Your task to perform on an android device: Show the shopping cart on costco.com. Search for apple airpods pro on costco.com, select the first entry, add it to the cart, then select checkout. Image 0: 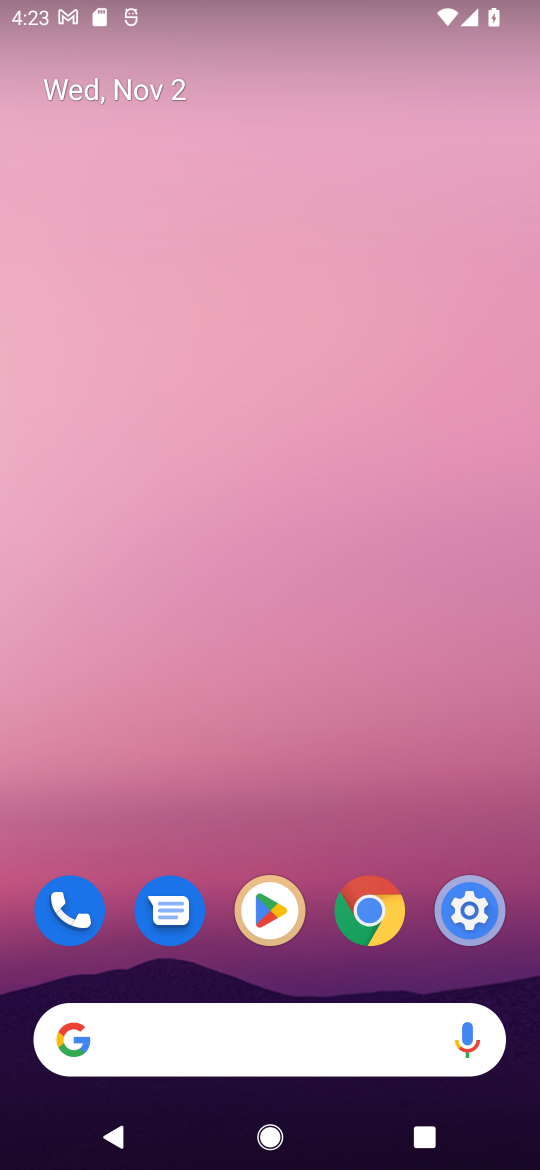
Step 0: click (163, 1031)
Your task to perform on an android device: Show the shopping cart on costco.com. Search for apple airpods pro on costco.com, select the first entry, add it to the cart, then select checkout. Image 1: 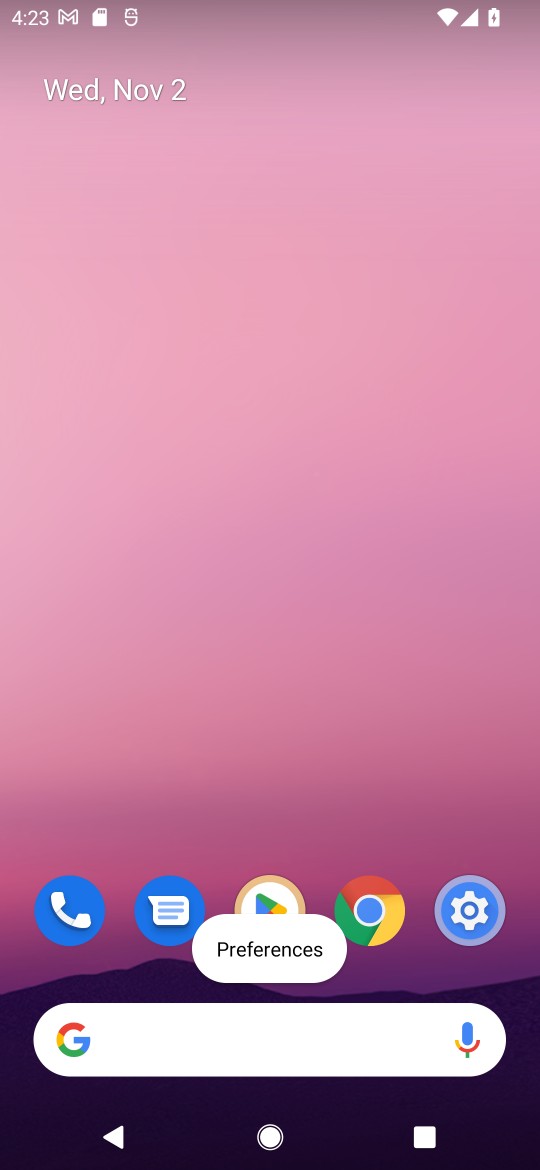
Step 1: click (165, 1036)
Your task to perform on an android device: Show the shopping cart on costco.com. Search for apple airpods pro on costco.com, select the first entry, add it to the cart, then select checkout. Image 2: 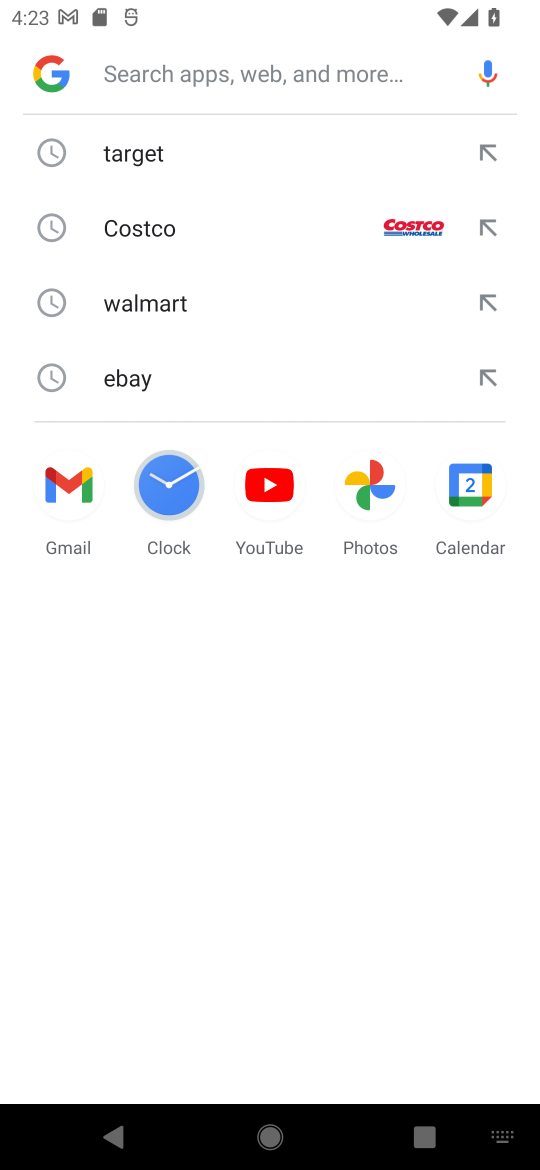
Step 2: type "costco.com"
Your task to perform on an android device: Show the shopping cart on costco.com. Search for apple airpods pro on costco.com, select the first entry, add it to the cart, then select checkout. Image 3: 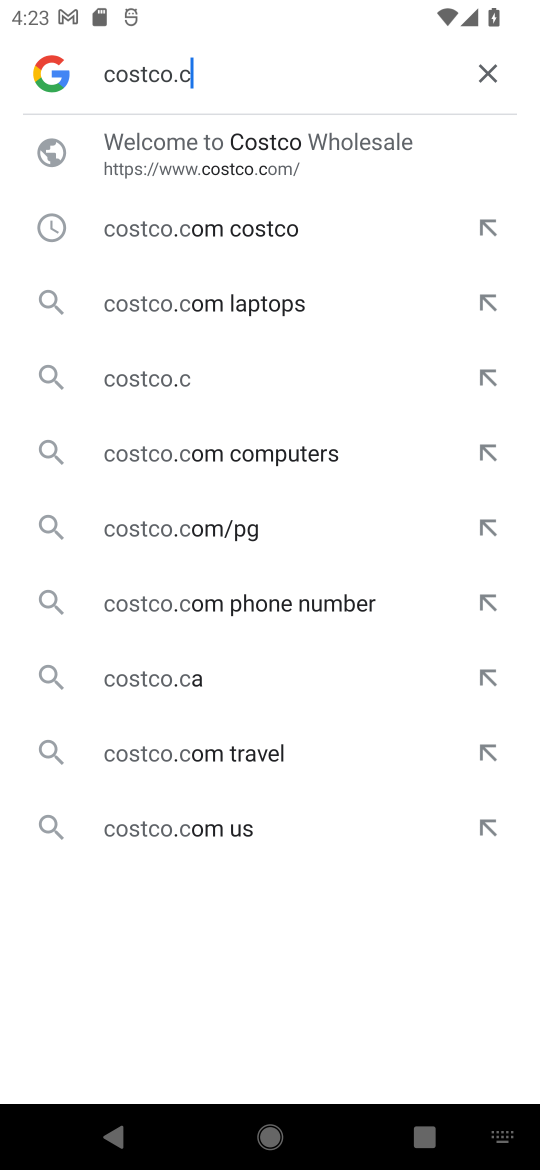
Step 3: type ""
Your task to perform on an android device: Show the shopping cart on costco.com. Search for apple airpods pro on costco.com, select the first entry, add it to the cart, then select checkout. Image 4: 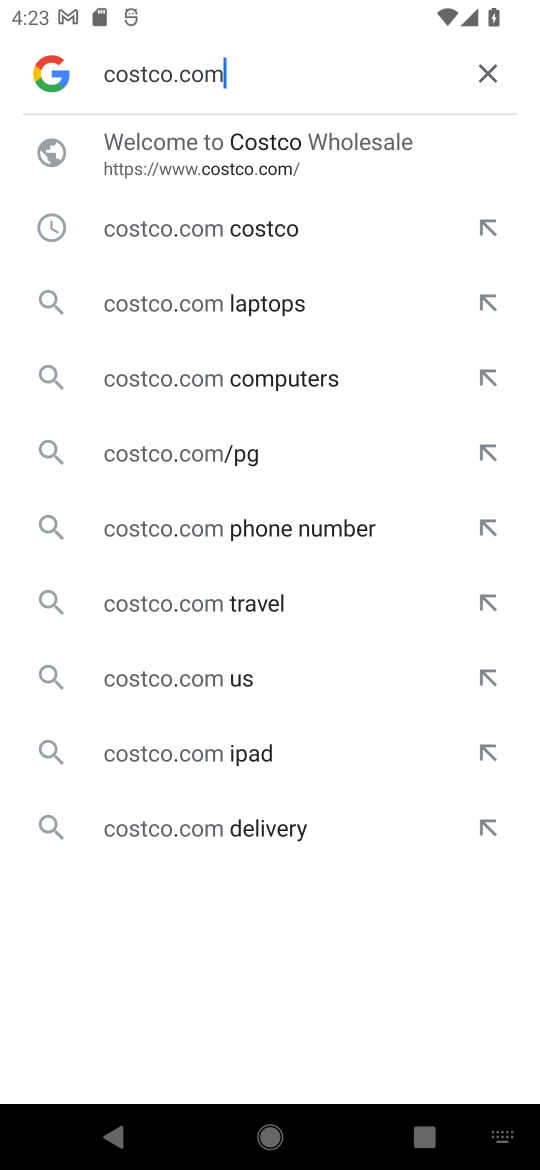
Step 4: press enter
Your task to perform on an android device: Show the shopping cart on costco.com. Search for apple airpods pro on costco.com, select the first entry, add it to the cart, then select checkout. Image 5: 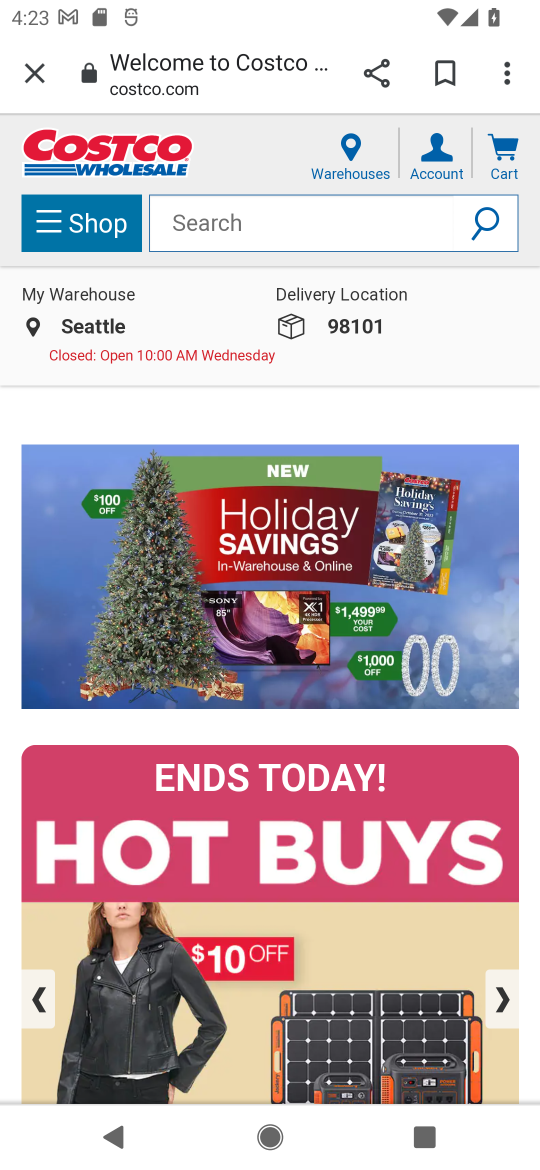
Step 5: type " apple airpods pro"
Your task to perform on an android device: Show the shopping cart on costco.com. Search for apple airpods pro on costco.com, select the first entry, add it to the cart, then select checkout. Image 6: 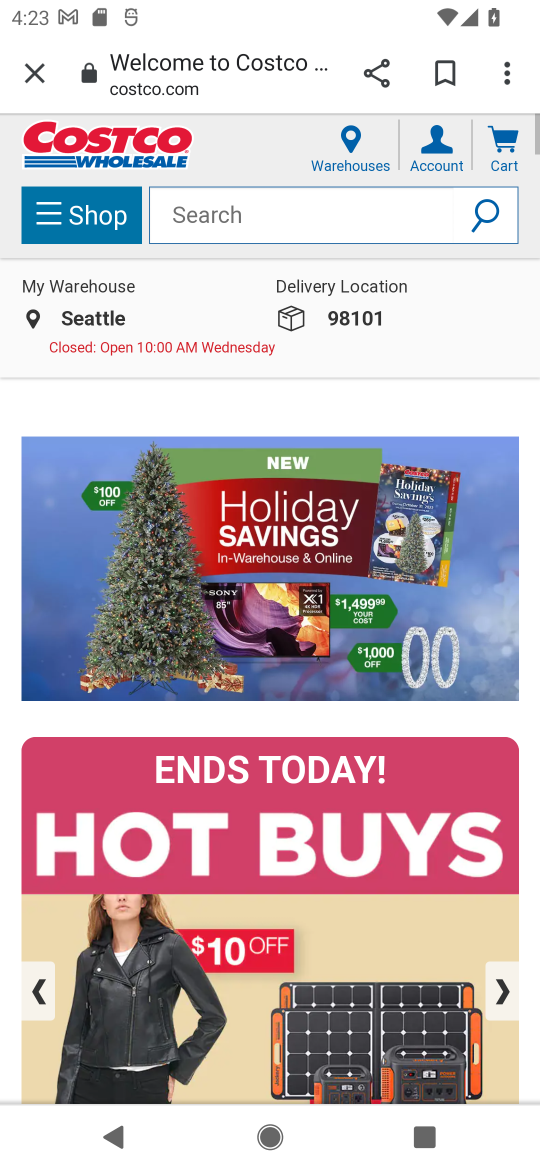
Step 6: type ""
Your task to perform on an android device: Show the shopping cart on costco.com. Search for apple airpods pro on costco.com, select the first entry, add it to the cart, then select checkout. Image 7: 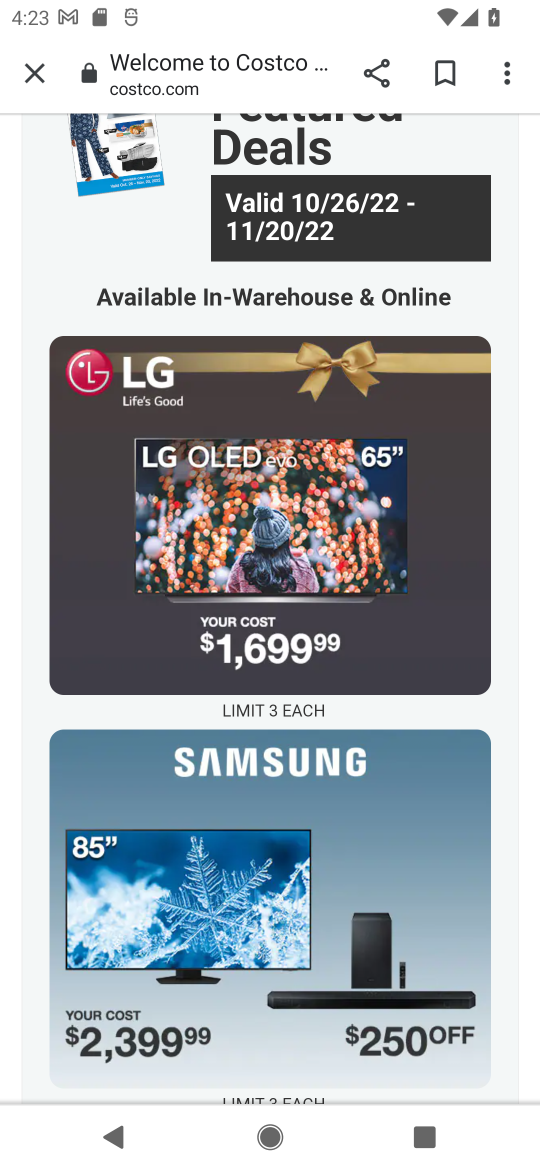
Step 7: drag from (514, 256) to (513, 667)
Your task to perform on an android device: Show the shopping cart on costco.com. Search for apple airpods pro on costco.com, select the first entry, add it to the cart, then select checkout. Image 8: 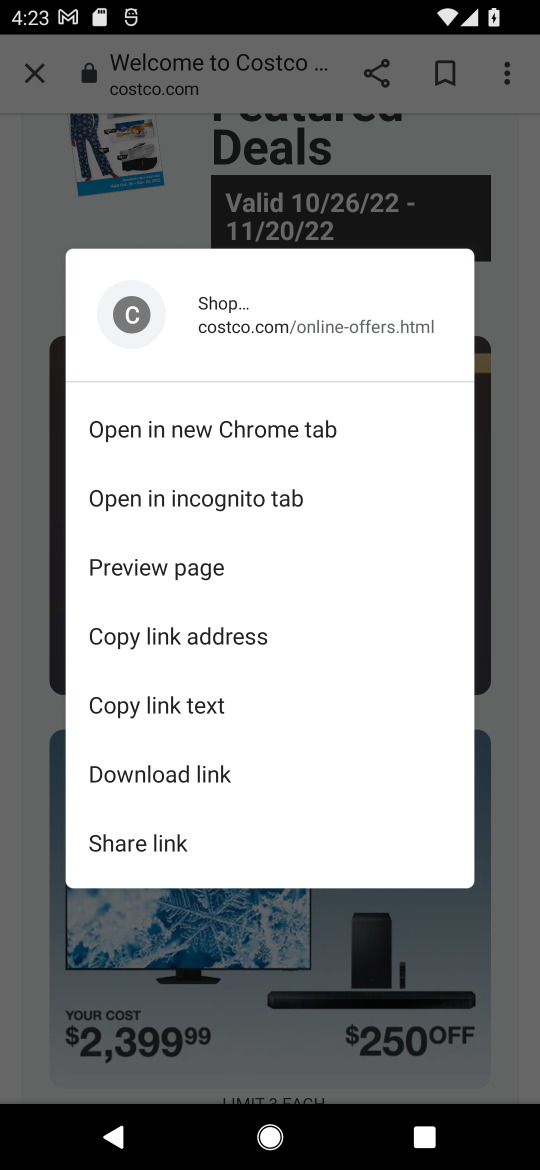
Step 8: click (518, 355)
Your task to perform on an android device: Show the shopping cart on costco.com. Search for apple airpods pro on costco.com, select the first entry, add it to the cart, then select checkout. Image 9: 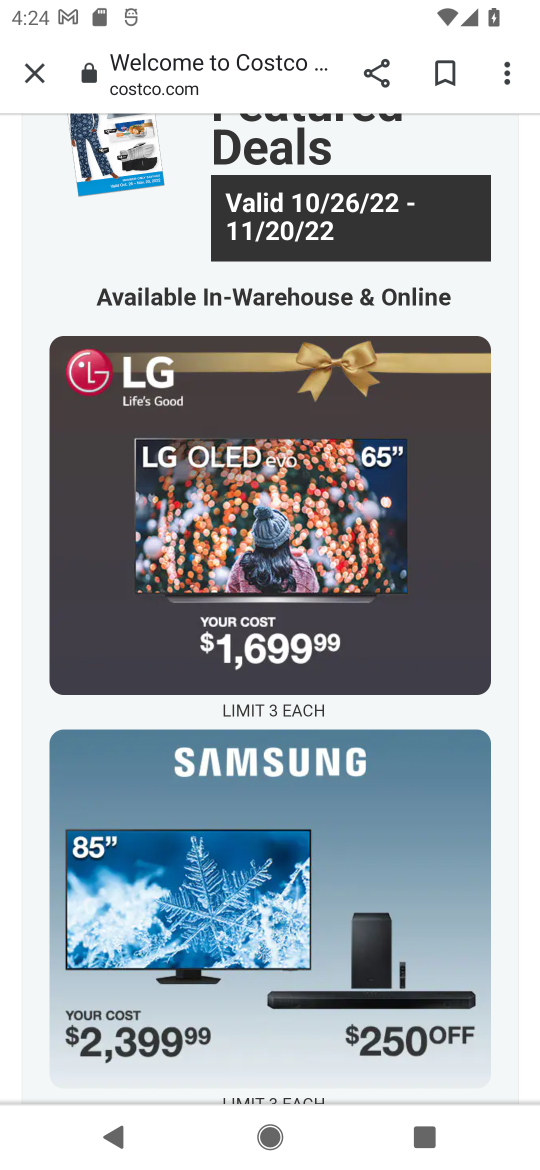
Step 9: drag from (524, 282) to (487, 1160)
Your task to perform on an android device: Show the shopping cart on costco.com. Search for apple airpods pro on costco.com, select the first entry, add it to the cart, then select checkout. Image 10: 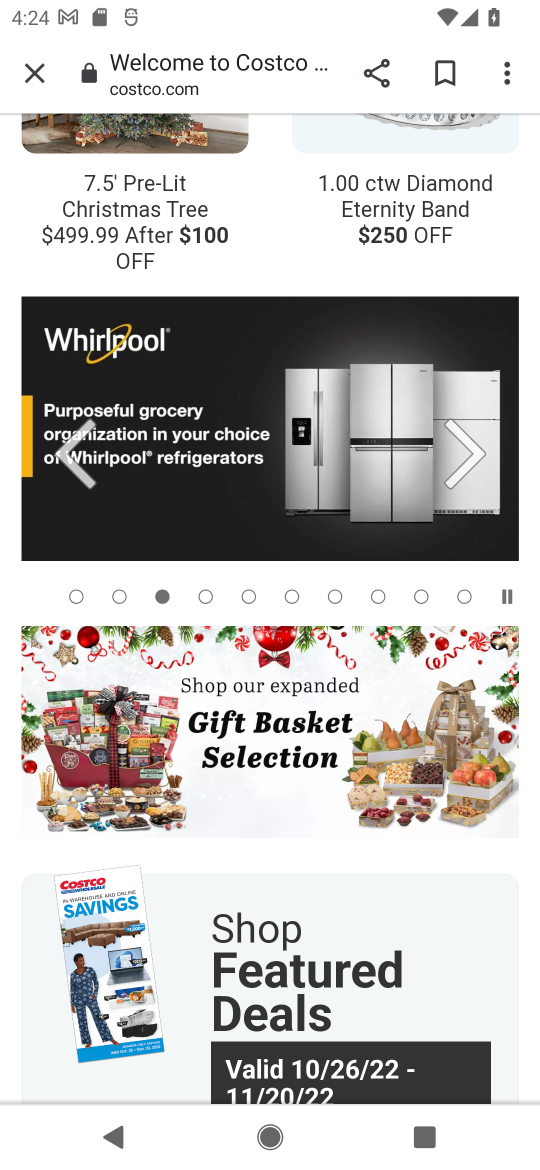
Step 10: drag from (521, 207) to (476, 1163)
Your task to perform on an android device: Show the shopping cart on costco.com. Search for apple airpods pro on costco.com, select the first entry, add it to the cart, then select checkout. Image 11: 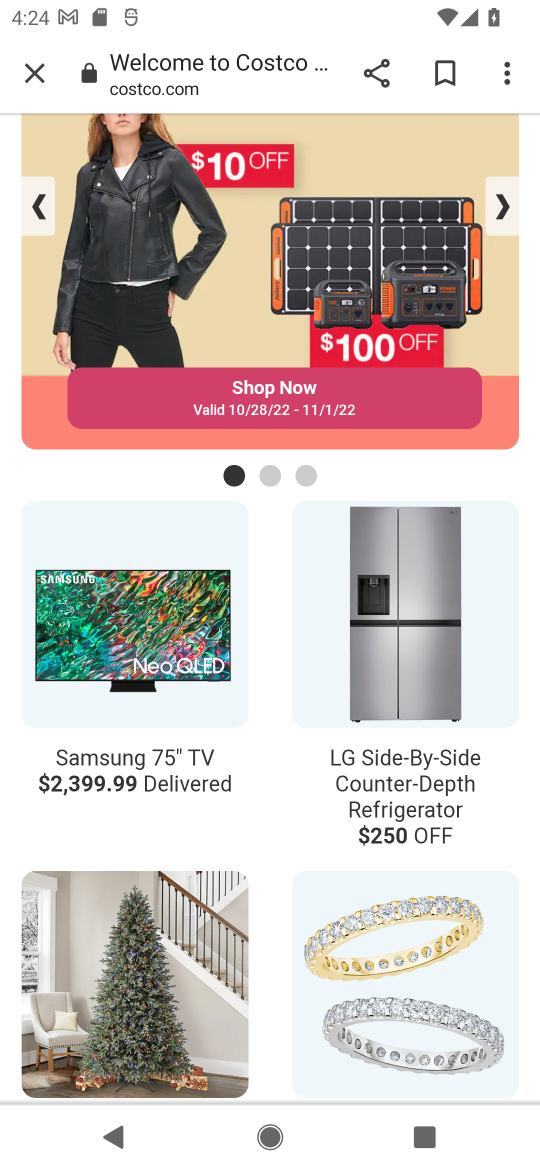
Step 11: drag from (523, 211) to (433, 1166)
Your task to perform on an android device: Show the shopping cart on costco.com. Search for apple airpods pro on costco.com, select the first entry, add it to the cart, then select checkout. Image 12: 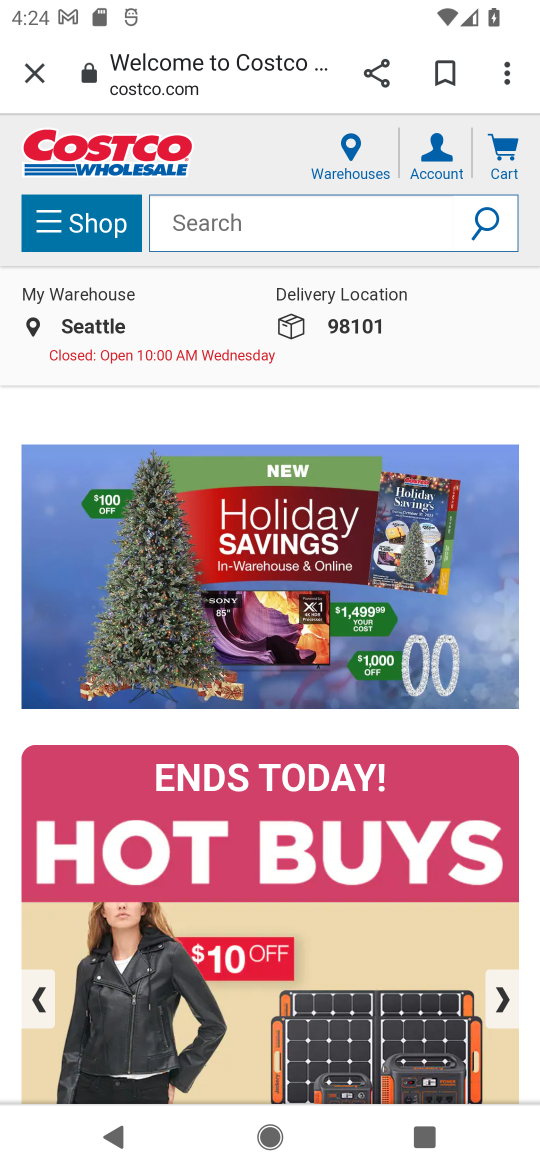
Step 12: click (228, 224)
Your task to perform on an android device: Show the shopping cart on costco.com. Search for apple airpods pro on costco.com, select the first entry, add it to the cart, then select checkout. Image 13: 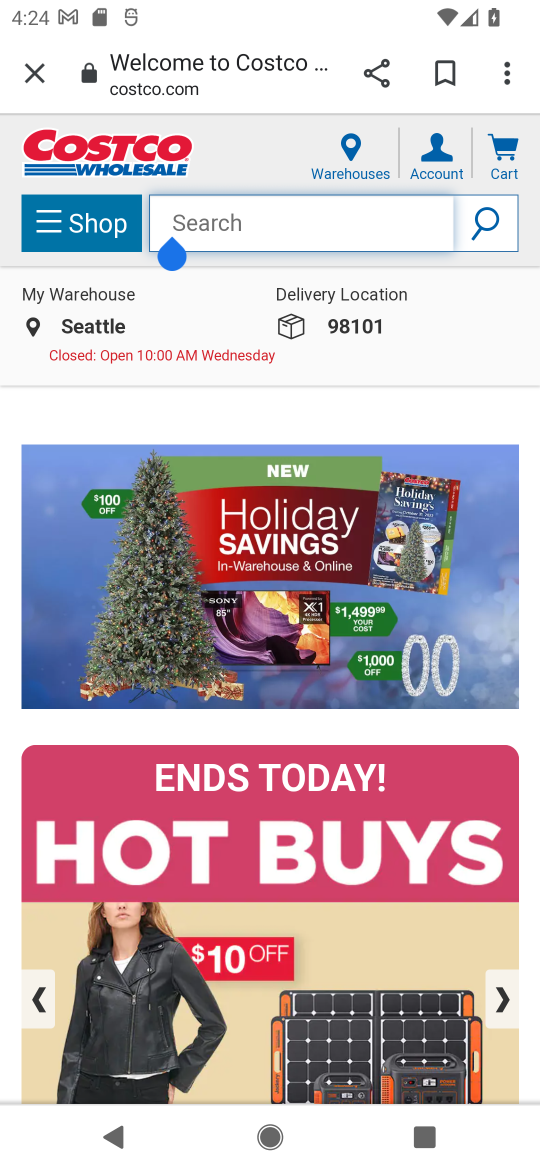
Step 13: type " apple airpods pro"
Your task to perform on an android device: Show the shopping cart on costco.com. Search for apple airpods pro on costco.com, select the first entry, add it to the cart, then select checkout. Image 14: 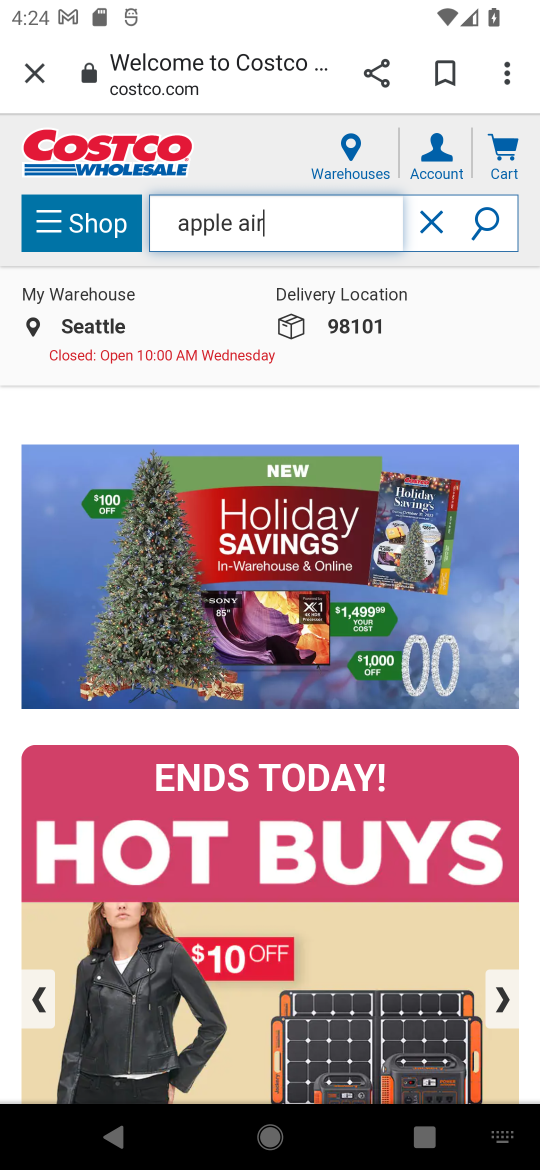
Step 14: type ""
Your task to perform on an android device: Show the shopping cart on costco.com. Search for apple airpods pro on costco.com, select the first entry, add it to the cart, then select checkout. Image 15: 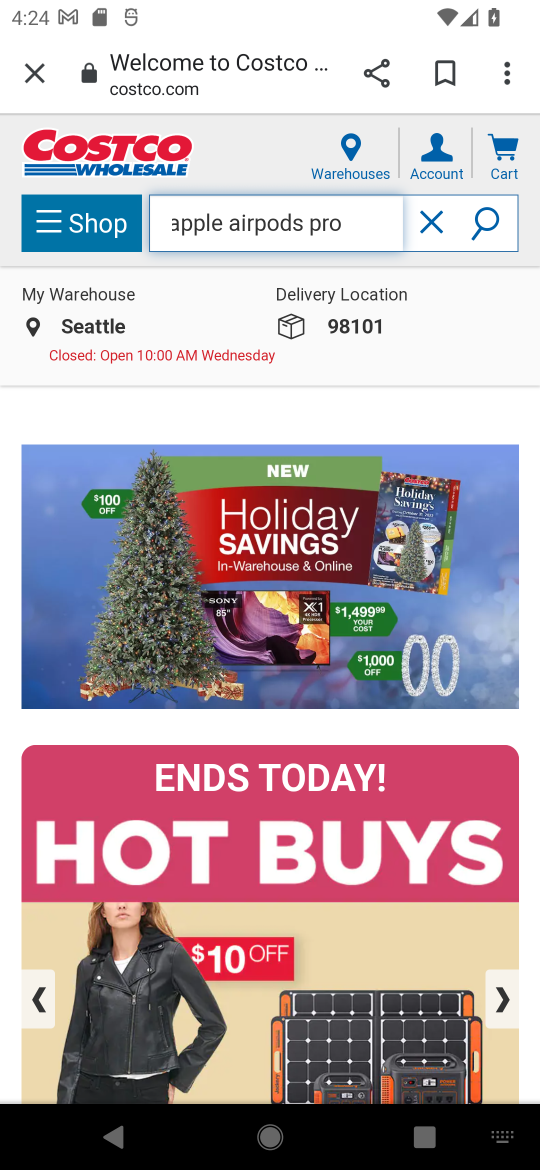
Step 15: click (484, 216)
Your task to perform on an android device: Show the shopping cart on costco.com. Search for apple airpods pro on costco.com, select the first entry, add it to the cart, then select checkout. Image 16: 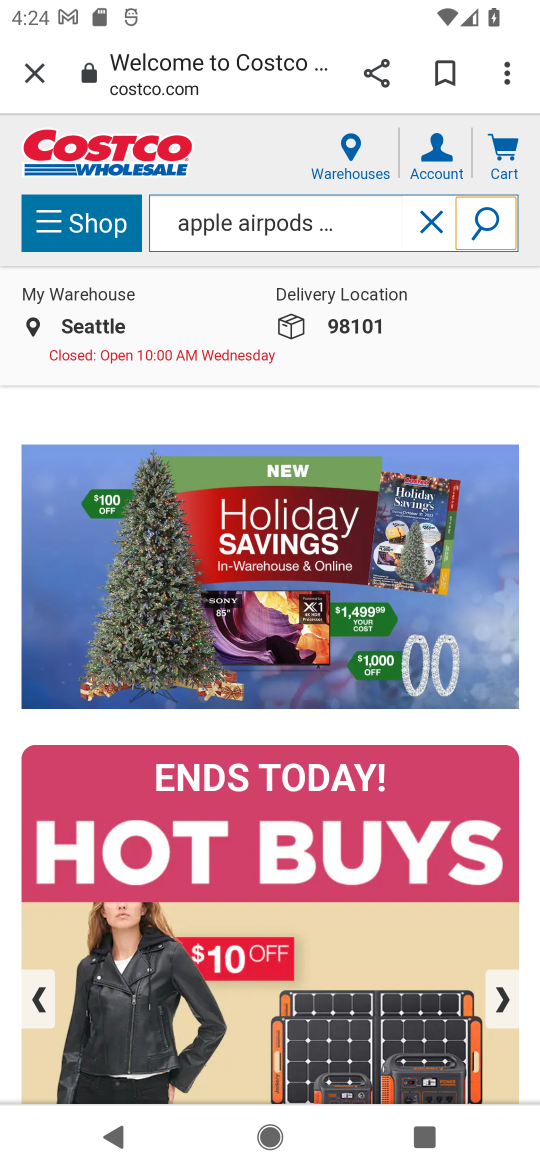
Step 16: click (484, 216)
Your task to perform on an android device: Show the shopping cart on costco.com. Search for apple airpods pro on costco.com, select the first entry, add it to the cart, then select checkout. Image 17: 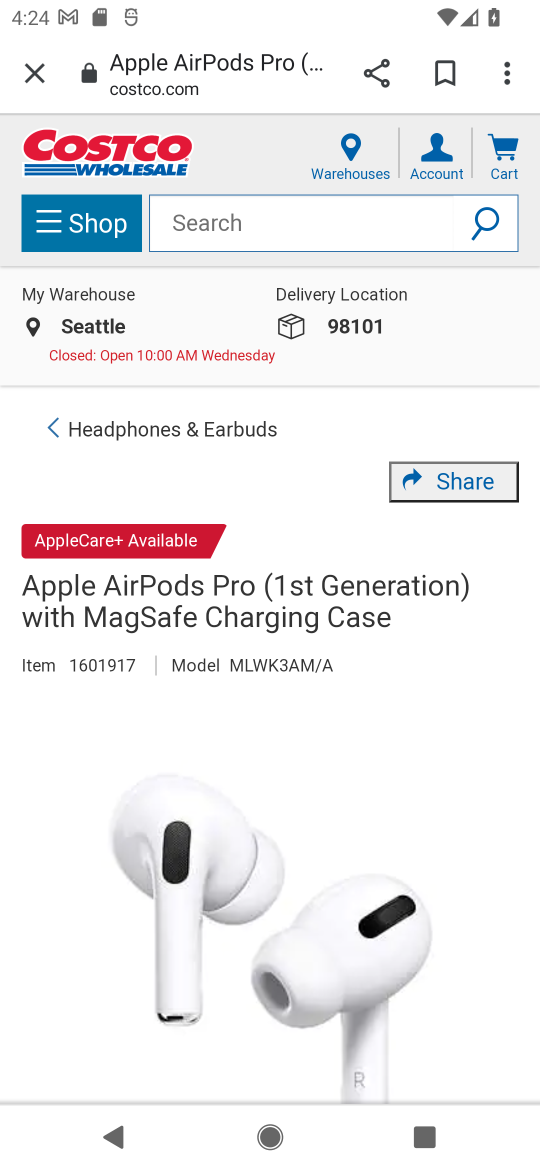
Step 17: drag from (489, 806) to (435, 173)
Your task to perform on an android device: Show the shopping cart on costco.com. Search for apple airpods pro on costco.com, select the first entry, add it to the cart, then select checkout. Image 18: 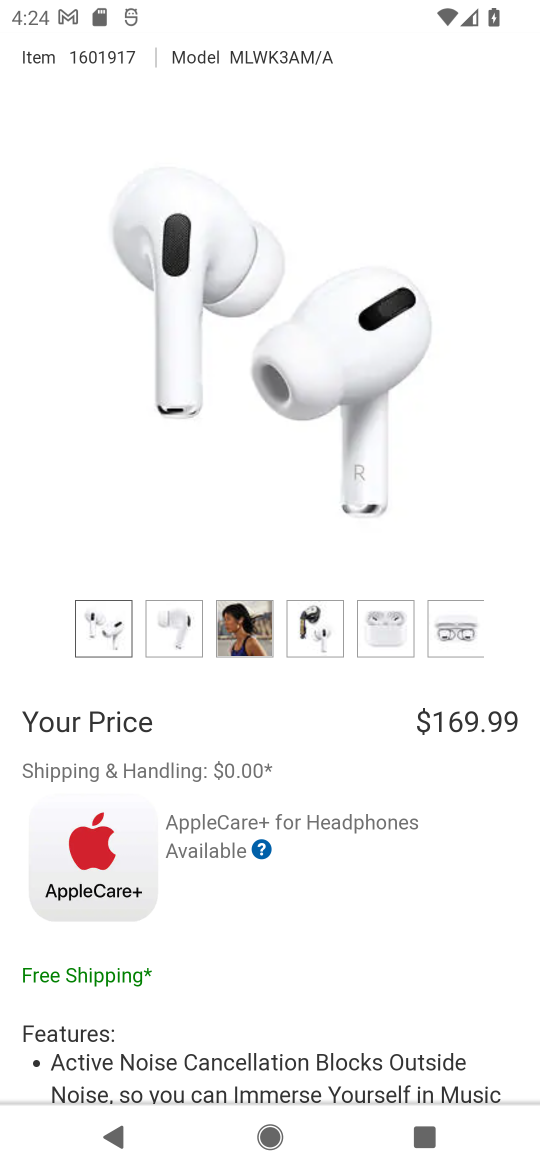
Step 18: drag from (387, 909) to (381, 346)
Your task to perform on an android device: Show the shopping cart on costco.com. Search for apple airpods pro on costco.com, select the first entry, add it to the cart, then select checkout. Image 19: 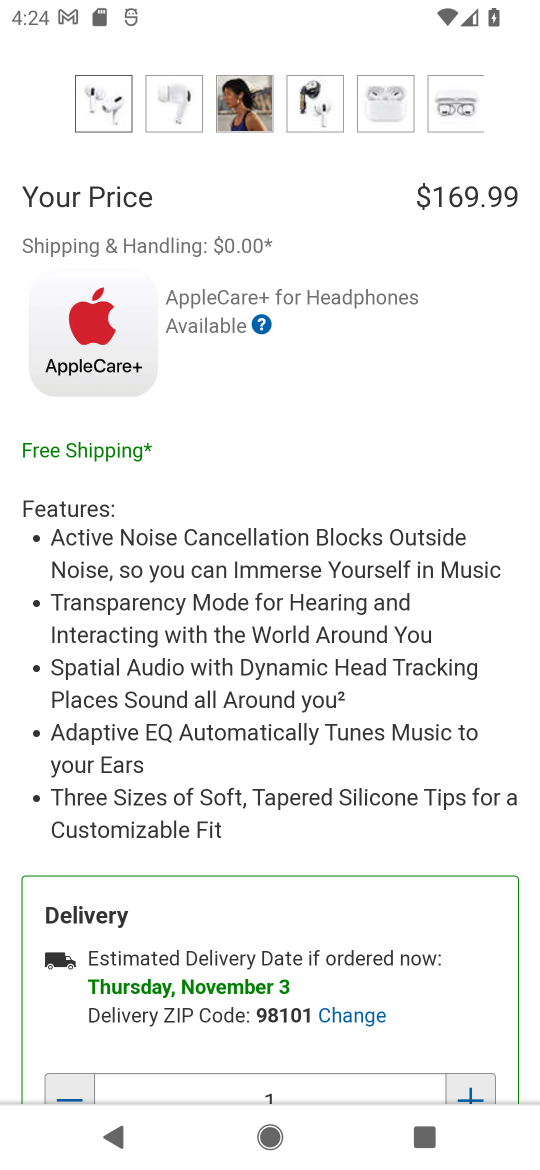
Step 19: drag from (306, 846) to (308, 351)
Your task to perform on an android device: Show the shopping cart on costco.com. Search for apple airpods pro on costco.com, select the first entry, add it to the cart, then select checkout. Image 20: 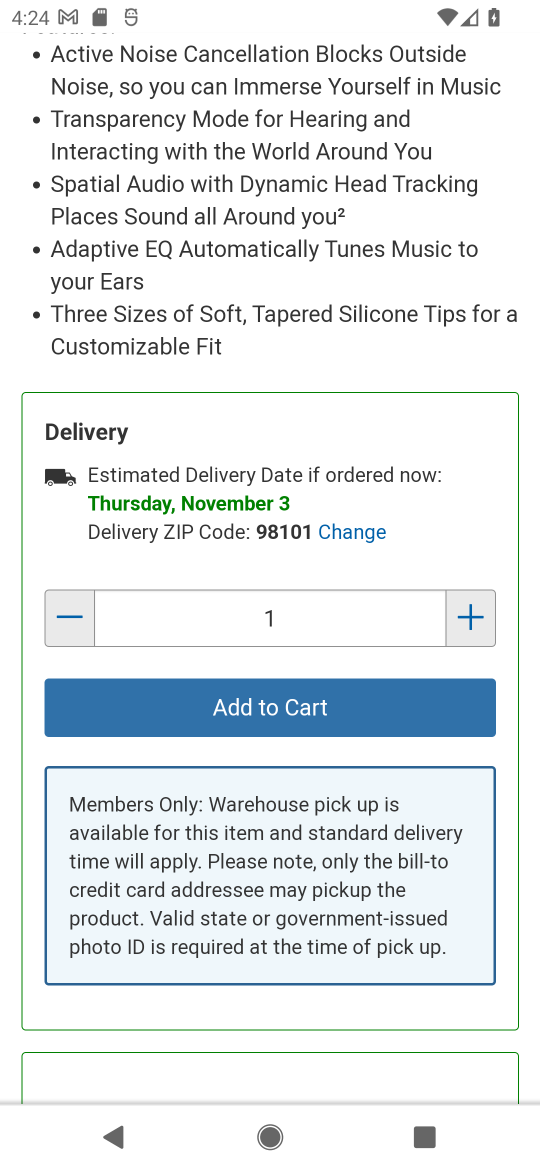
Step 20: click (252, 713)
Your task to perform on an android device: Show the shopping cart on costco.com. Search for apple airpods pro on costco.com, select the first entry, add it to the cart, then select checkout. Image 21: 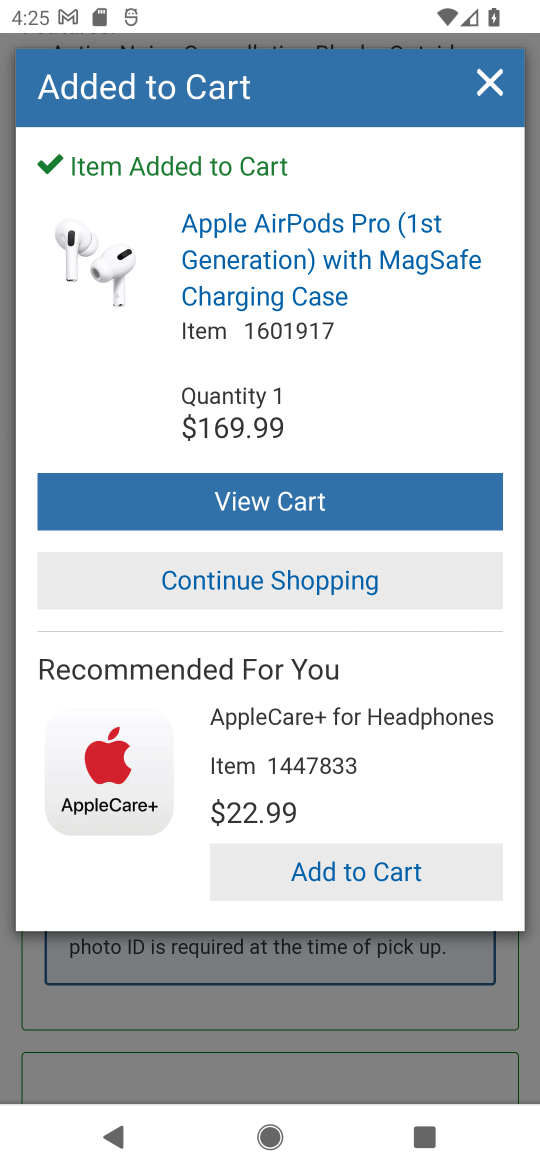
Step 21: click (344, 868)
Your task to perform on an android device: Show the shopping cart on costco.com. Search for apple airpods pro on costco.com, select the first entry, add it to the cart, then select checkout. Image 22: 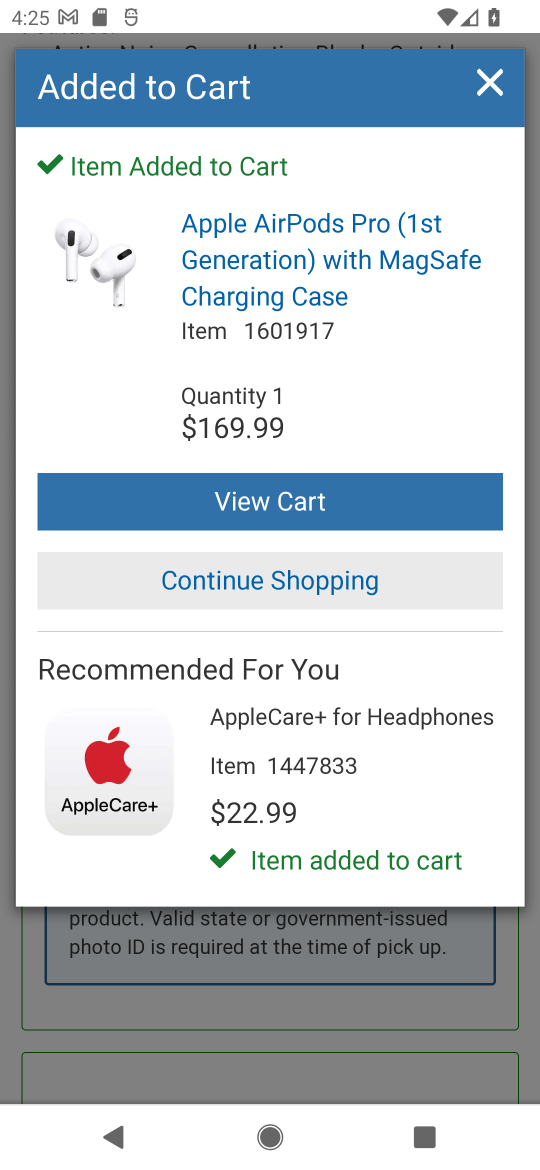
Step 22: click (331, 498)
Your task to perform on an android device: Show the shopping cart on costco.com. Search for apple airpods pro on costco.com, select the first entry, add it to the cart, then select checkout. Image 23: 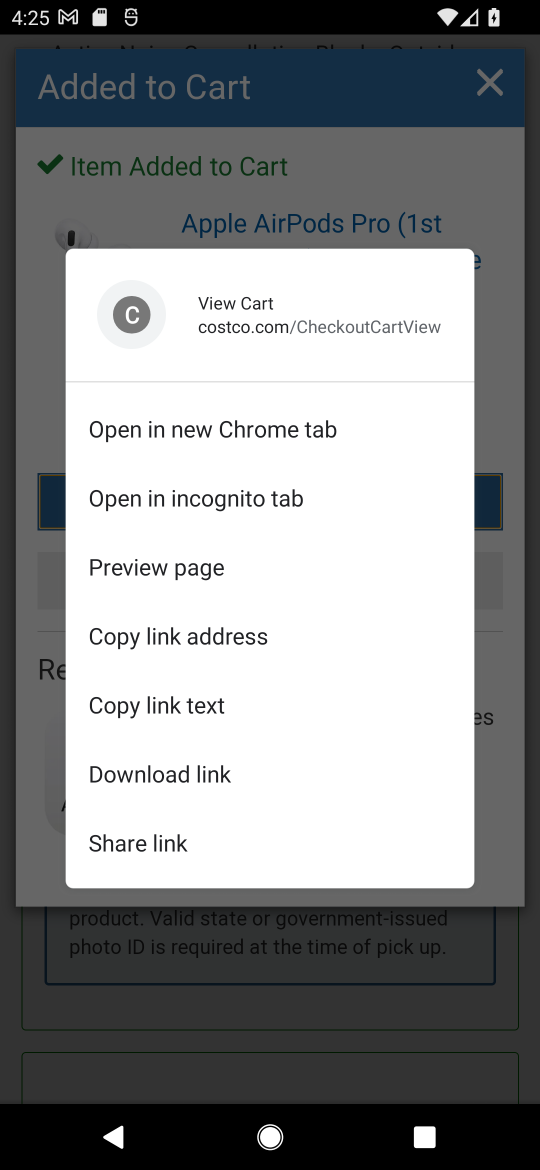
Step 23: click (512, 396)
Your task to perform on an android device: Show the shopping cart on costco.com. Search for apple airpods pro on costco.com, select the first entry, add it to the cart, then select checkout. Image 24: 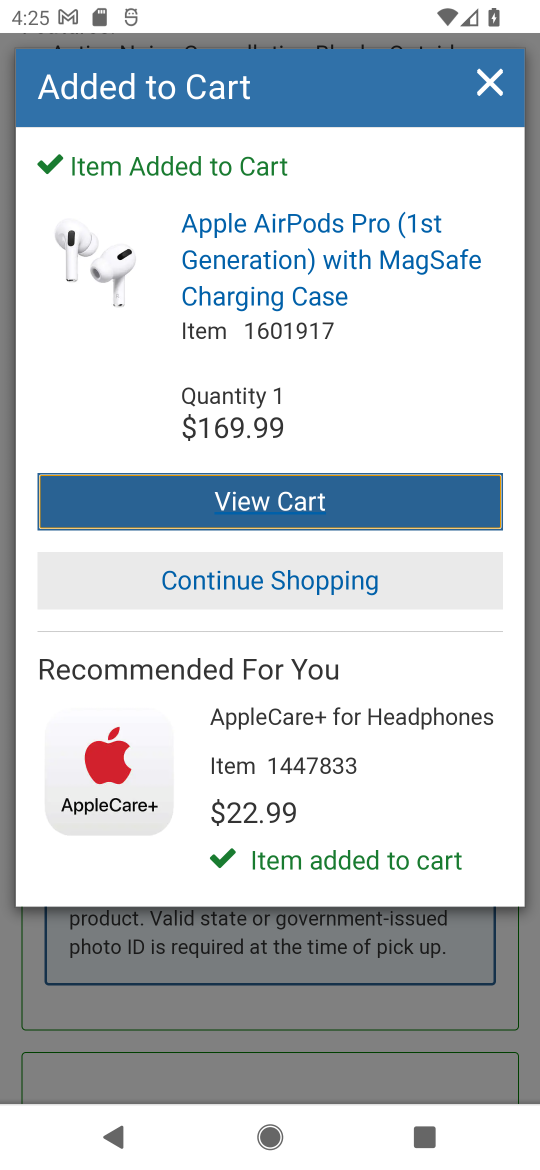
Step 24: click (316, 504)
Your task to perform on an android device: Show the shopping cart on costco.com. Search for apple airpods pro on costco.com, select the first entry, add it to the cart, then select checkout. Image 25: 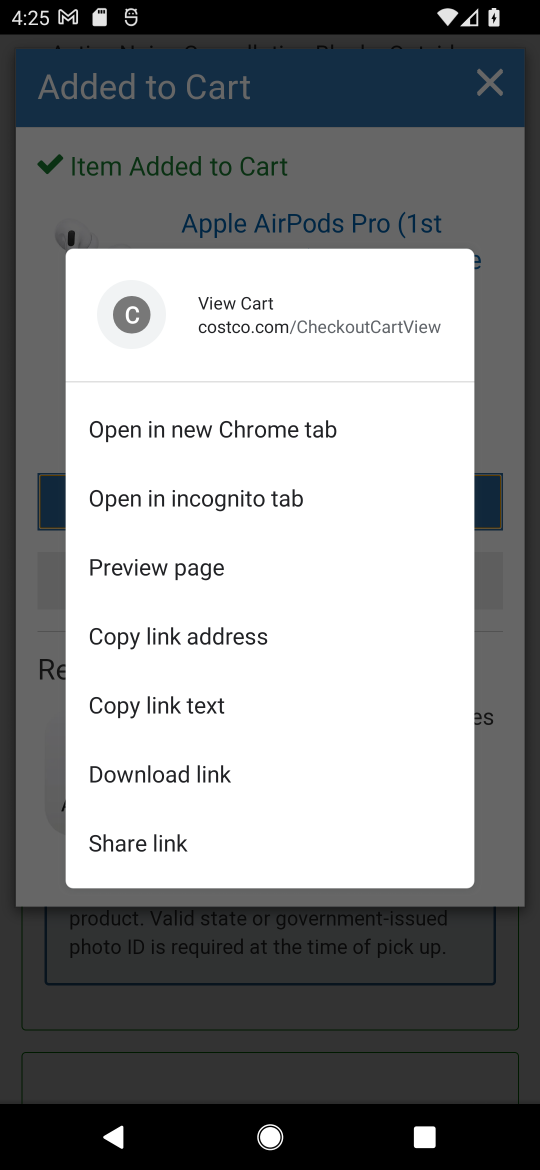
Step 25: click (488, 497)
Your task to perform on an android device: Show the shopping cart on costco.com. Search for apple airpods pro on costco.com, select the first entry, add it to the cart, then select checkout. Image 26: 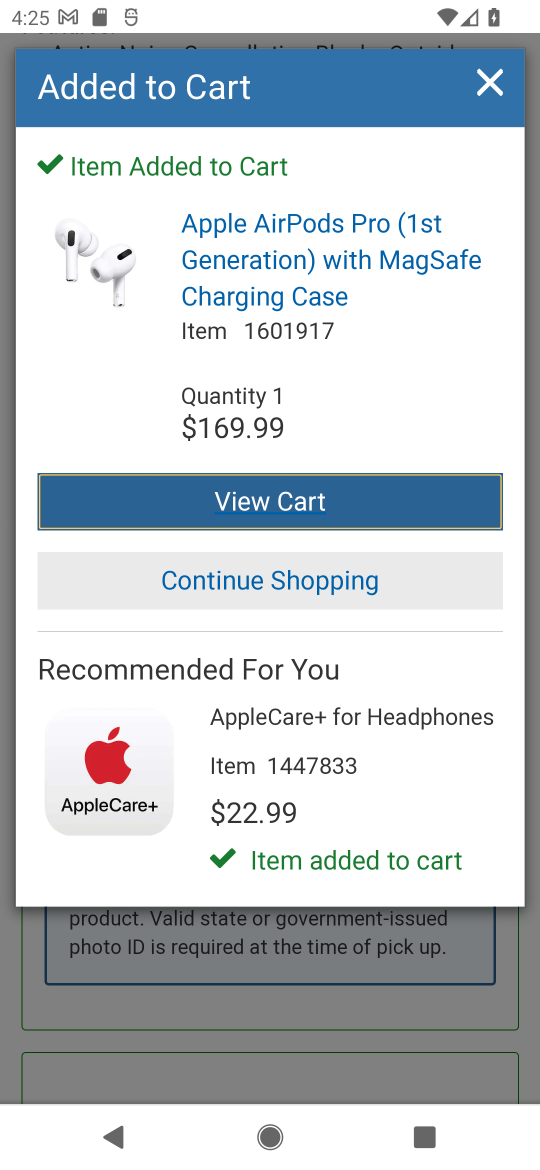
Step 26: click (495, 87)
Your task to perform on an android device: Show the shopping cart on costco.com. Search for apple airpods pro on costco.com, select the first entry, add it to the cart, then select checkout. Image 27: 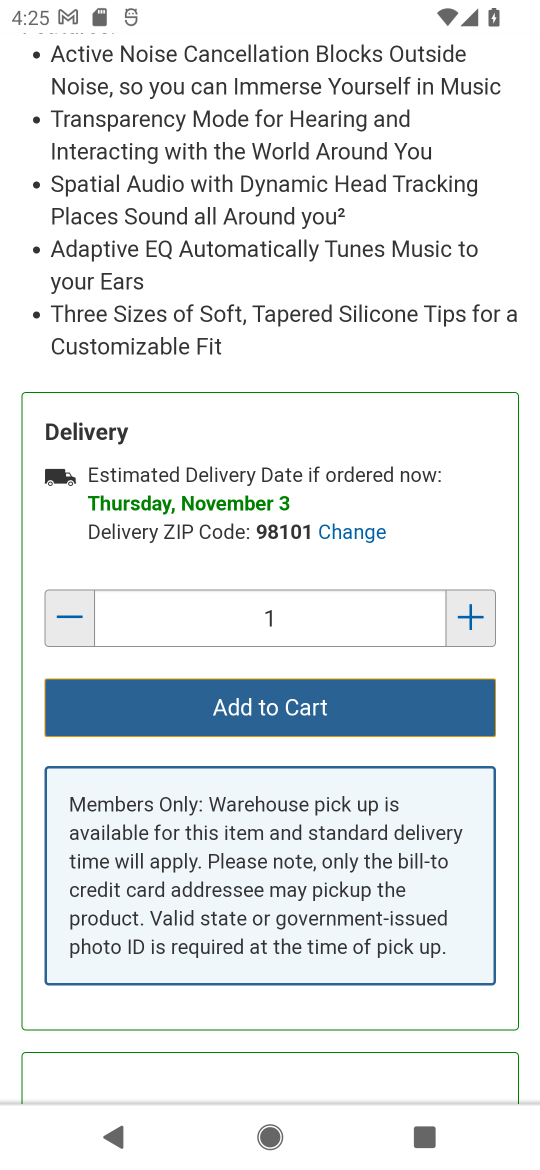
Step 27: drag from (485, 134) to (452, 1156)
Your task to perform on an android device: Show the shopping cart on costco.com. Search for apple airpods pro on costco.com, select the first entry, add it to the cart, then select checkout. Image 28: 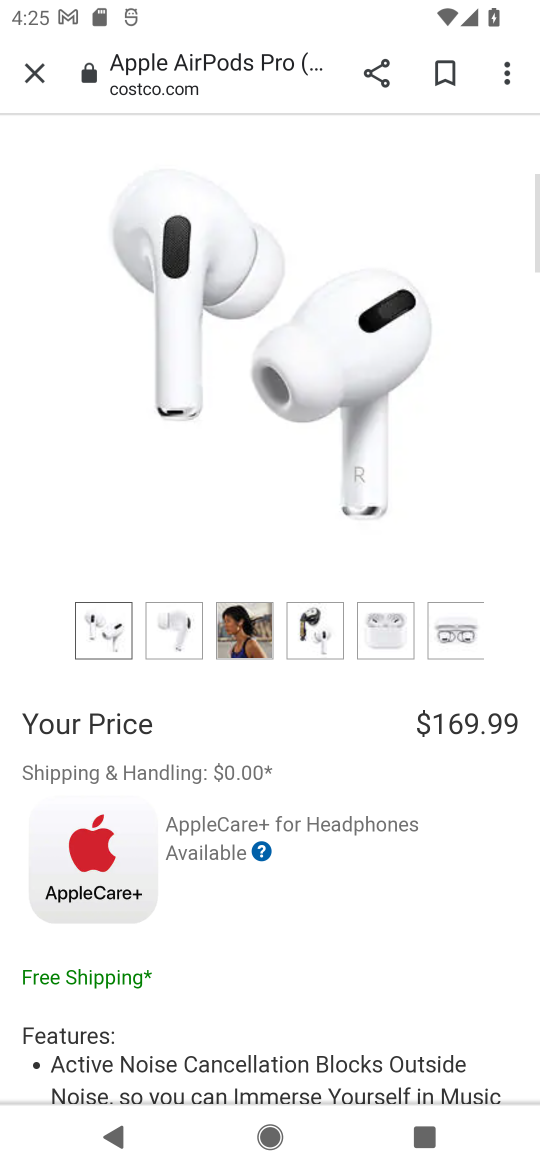
Step 28: drag from (452, 940) to (420, 299)
Your task to perform on an android device: Show the shopping cart on costco.com. Search for apple airpods pro on costco.com, select the first entry, add it to the cart, then select checkout. Image 29: 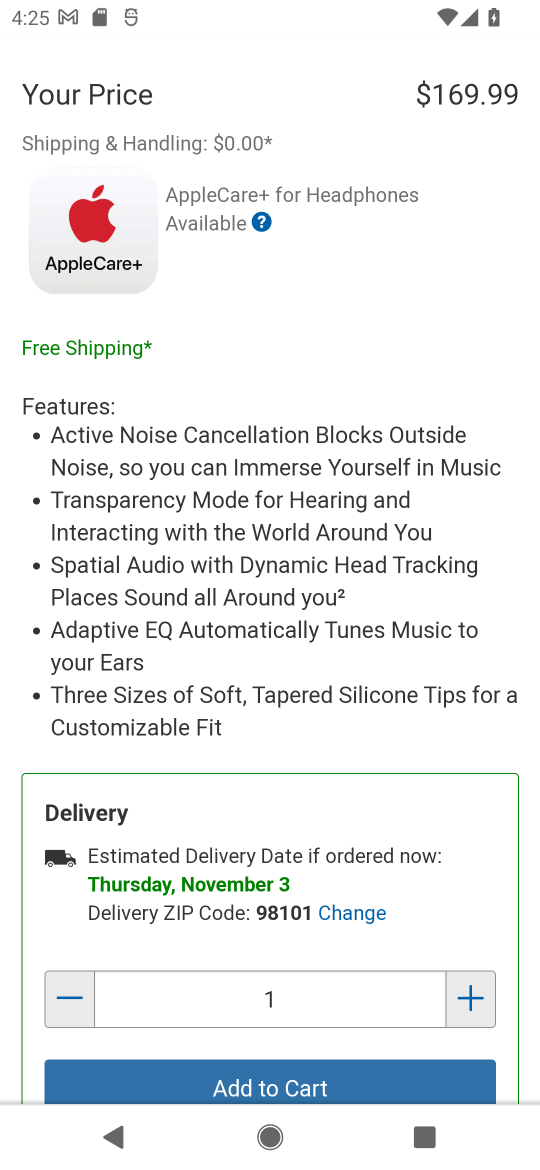
Step 29: drag from (363, 910) to (371, 727)
Your task to perform on an android device: Show the shopping cart on costco.com. Search for apple airpods pro on costco.com, select the first entry, add it to the cart, then select checkout. Image 30: 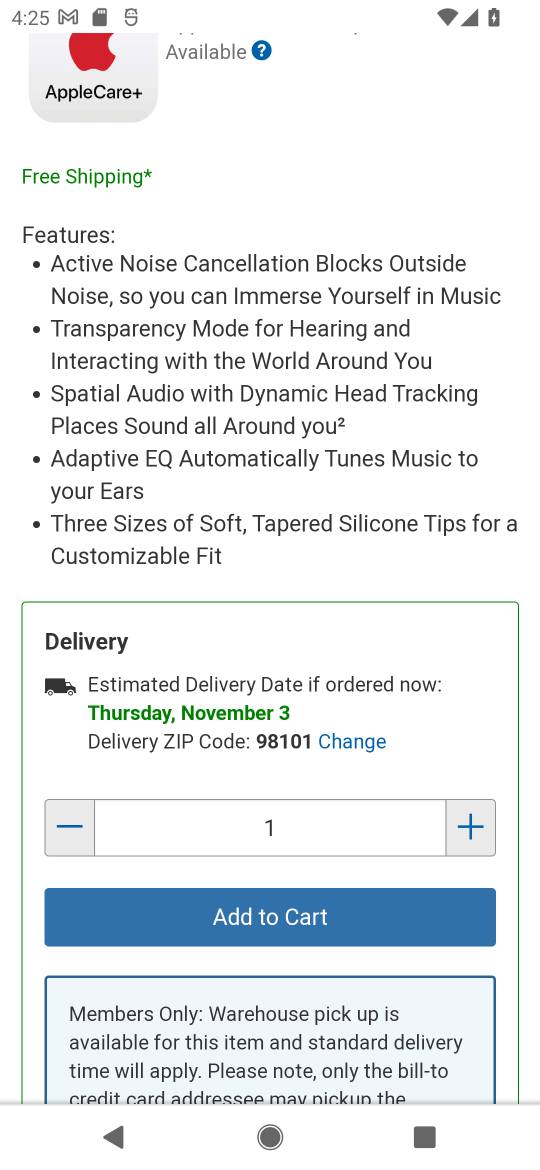
Step 30: click (261, 924)
Your task to perform on an android device: Show the shopping cart on costco.com. Search for apple airpods pro on costco.com, select the first entry, add it to the cart, then select checkout. Image 31: 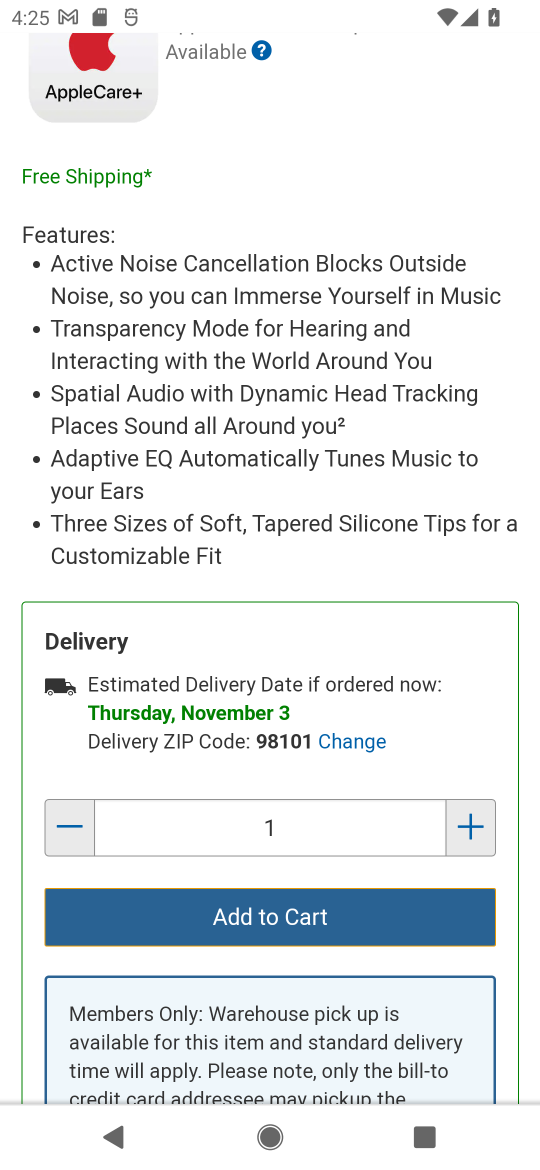
Step 31: click (261, 924)
Your task to perform on an android device: Show the shopping cart on costco.com. Search for apple airpods pro on costco.com, select the first entry, add it to the cart, then select checkout. Image 32: 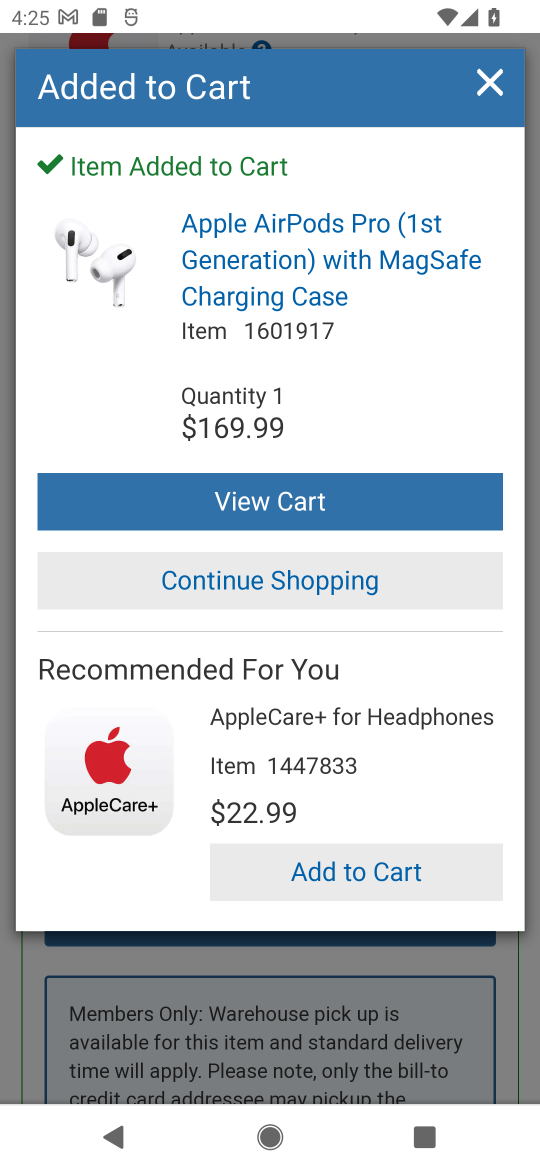
Step 32: click (308, 507)
Your task to perform on an android device: Show the shopping cart on costco.com. Search for apple airpods pro on costco.com, select the first entry, add it to the cart, then select checkout. Image 33: 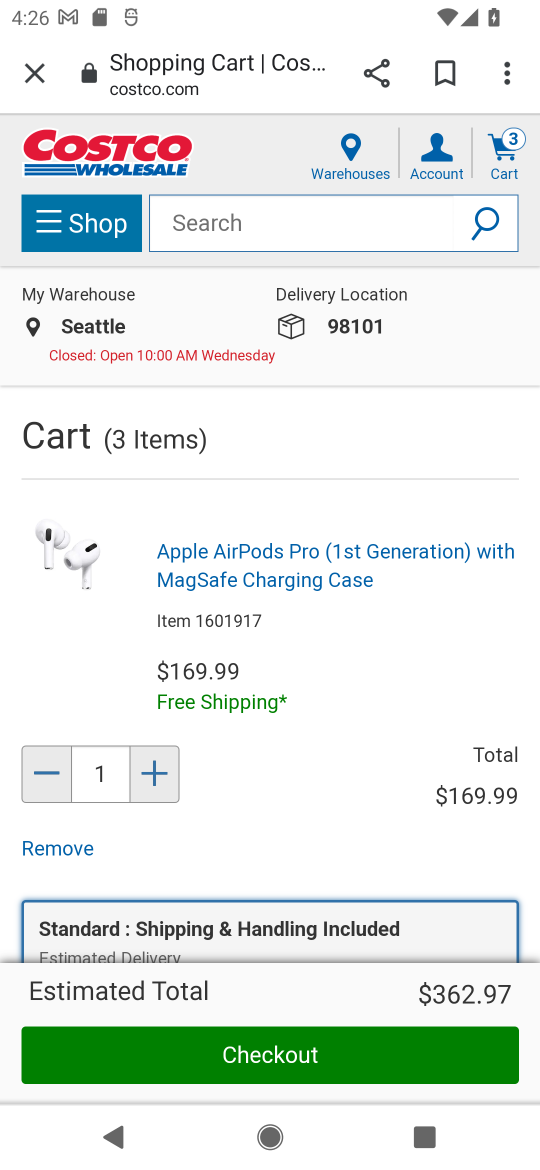
Step 33: click (271, 1052)
Your task to perform on an android device: Show the shopping cart on costco.com. Search for apple airpods pro on costco.com, select the first entry, add it to the cart, then select checkout. Image 34: 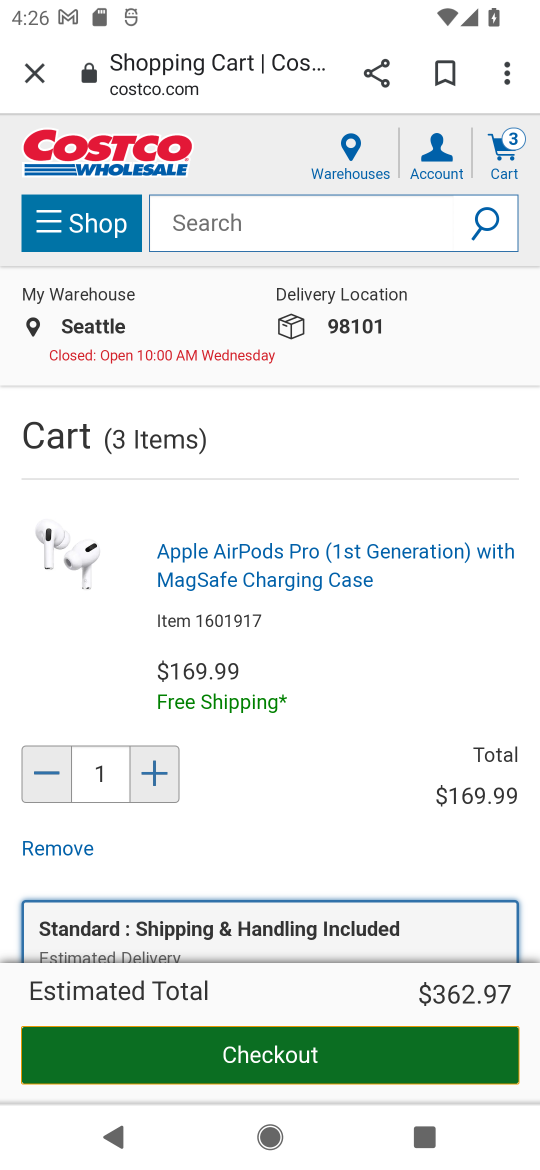
Step 34: click (266, 1056)
Your task to perform on an android device: Show the shopping cart on costco.com. Search for apple airpods pro on costco.com, select the first entry, add it to the cart, then select checkout. Image 35: 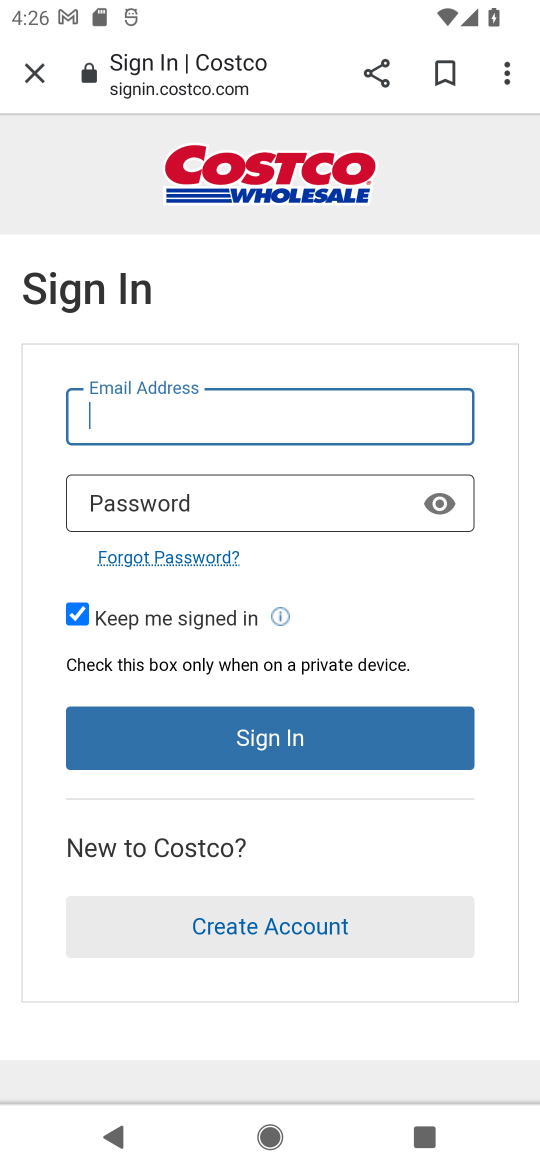
Step 35: task complete